Your task to perform on an android device: turn pop-ups on in chrome Image 0: 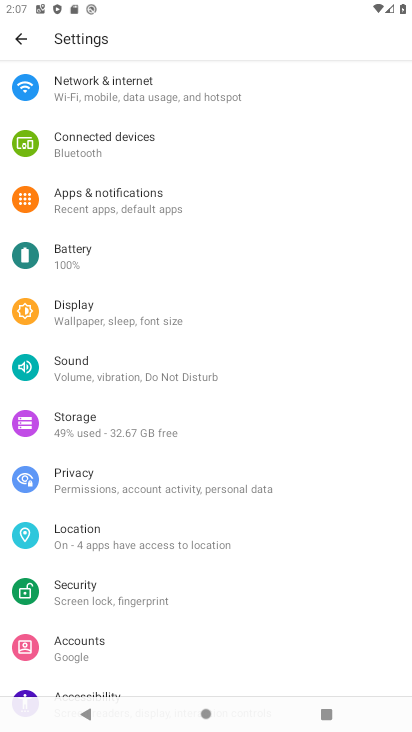
Step 0: press home button
Your task to perform on an android device: turn pop-ups on in chrome Image 1: 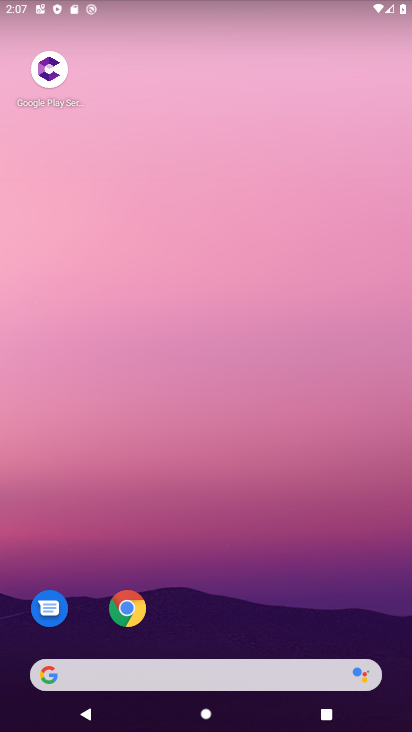
Step 1: drag from (296, 684) to (351, 37)
Your task to perform on an android device: turn pop-ups on in chrome Image 2: 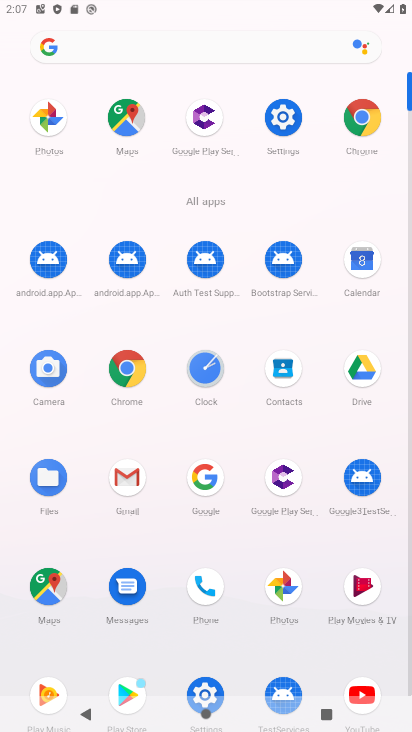
Step 2: click (130, 362)
Your task to perform on an android device: turn pop-ups on in chrome Image 3: 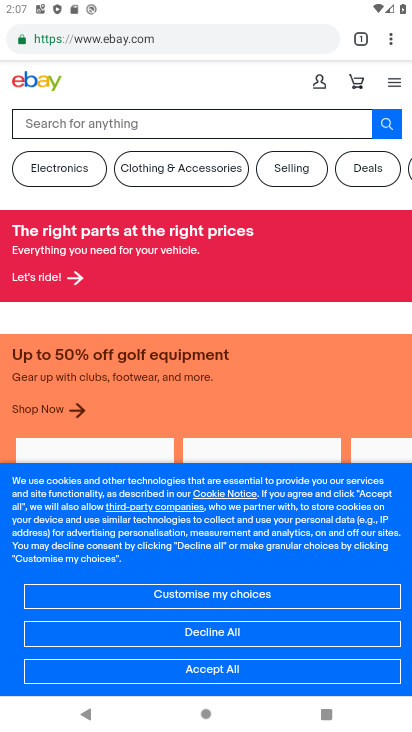
Step 3: drag from (389, 38) to (270, 475)
Your task to perform on an android device: turn pop-ups on in chrome Image 4: 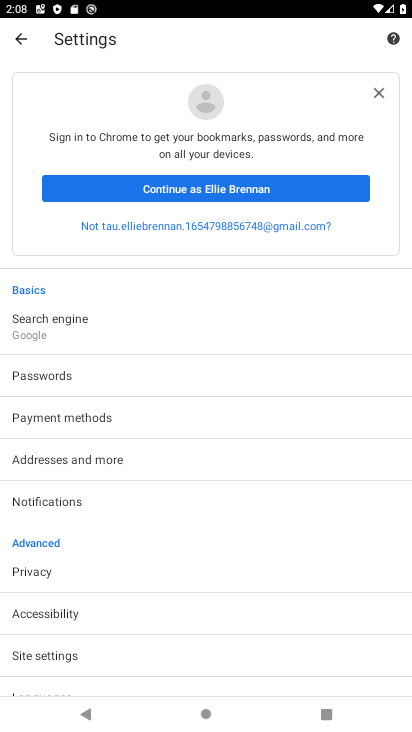
Step 4: click (112, 660)
Your task to perform on an android device: turn pop-ups on in chrome Image 5: 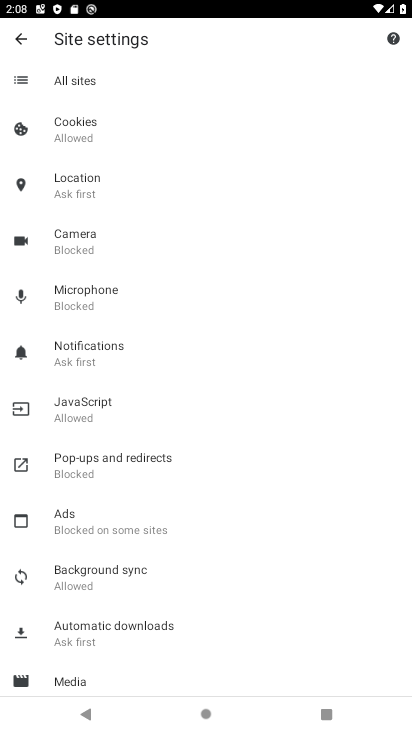
Step 5: click (175, 464)
Your task to perform on an android device: turn pop-ups on in chrome Image 6: 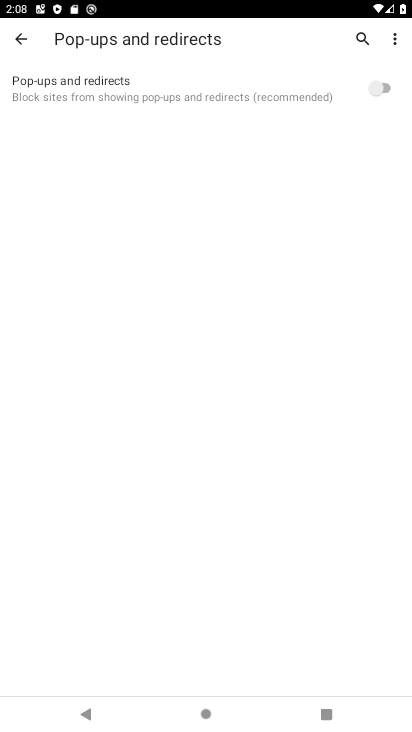
Step 6: click (388, 92)
Your task to perform on an android device: turn pop-ups on in chrome Image 7: 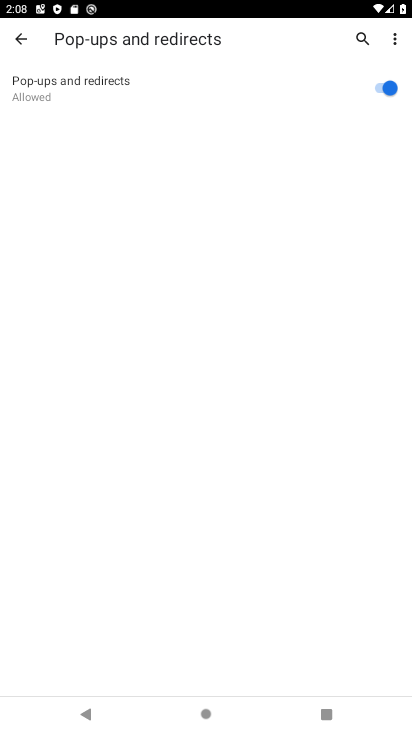
Step 7: task complete